Your task to perform on an android device: Go to settings Image 0: 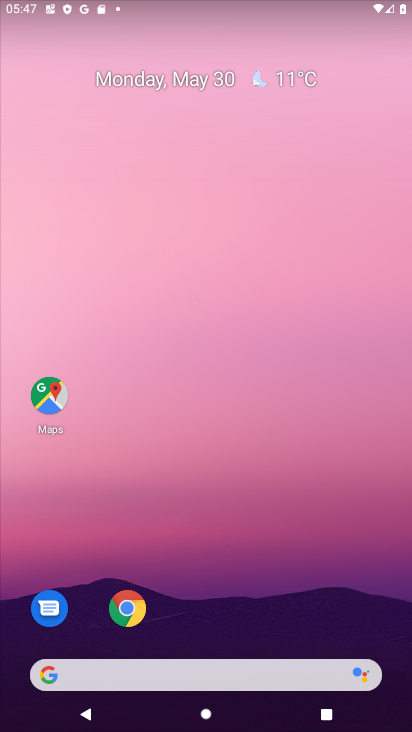
Step 0: drag from (157, 659) to (156, 185)
Your task to perform on an android device: Go to settings Image 1: 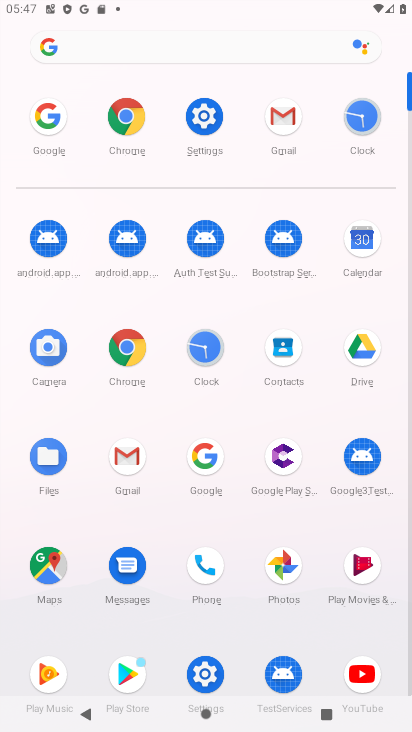
Step 1: click (214, 114)
Your task to perform on an android device: Go to settings Image 2: 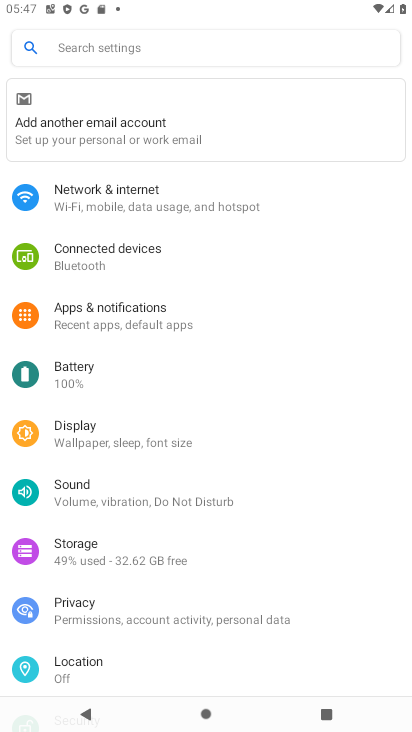
Step 2: task complete